Your task to perform on an android device: turn on the 12-hour format for clock Image 0: 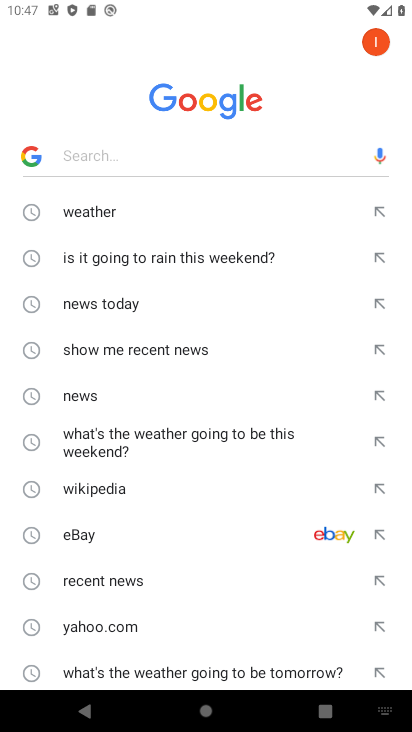
Step 0: press home button
Your task to perform on an android device: turn on the 12-hour format for clock Image 1: 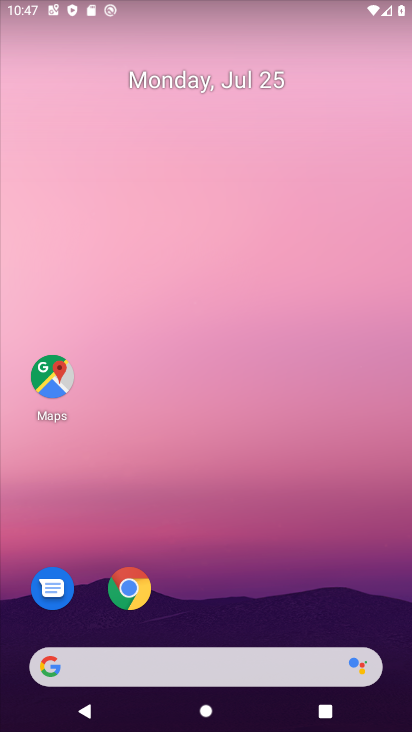
Step 1: drag from (285, 600) to (272, 67)
Your task to perform on an android device: turn on the 12-hour format for clock Image 2: 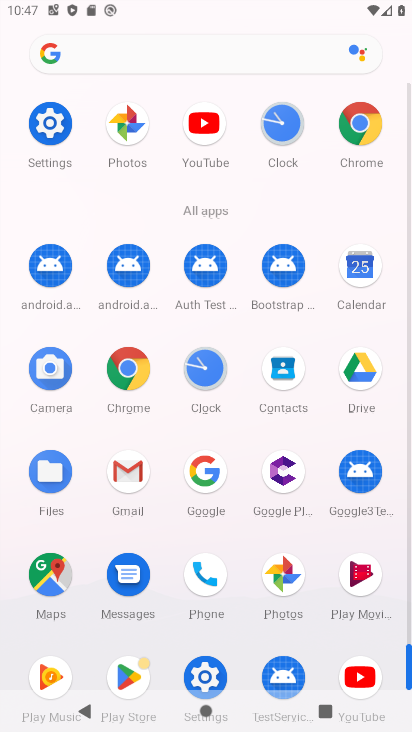
Step 2: click (212, 366)
Your task to perform on an android device: turn on the 12-hour format for clock Image 3: 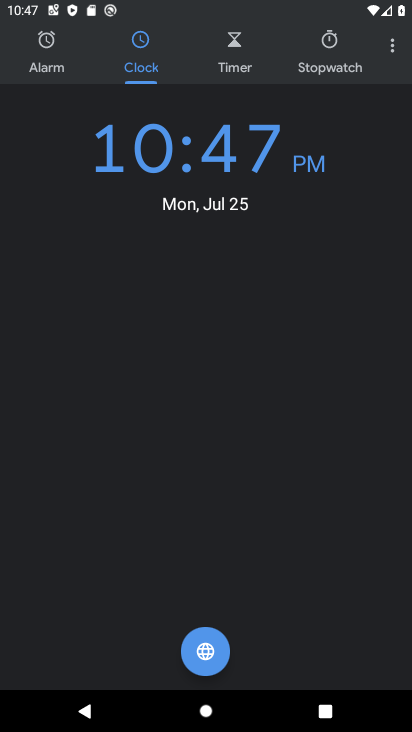
Step 3: click (402, 49)
Your task to perform on an android device: turn on the 12-hour format for clock Image 4: 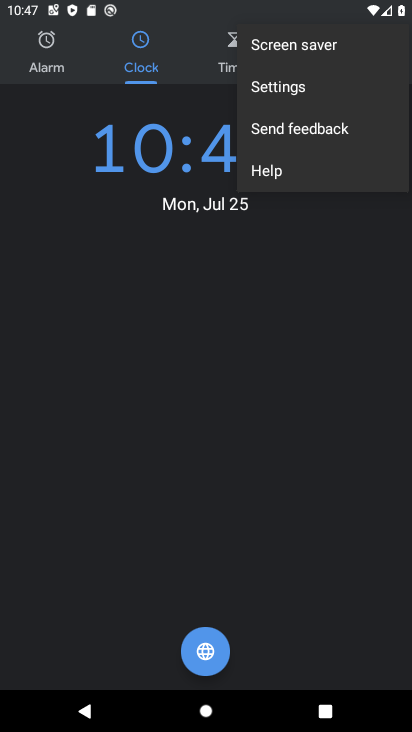
Step 4: click (298, 87)
Your task to perform on an android device: turn on the 12-hour format for clock Image 5: 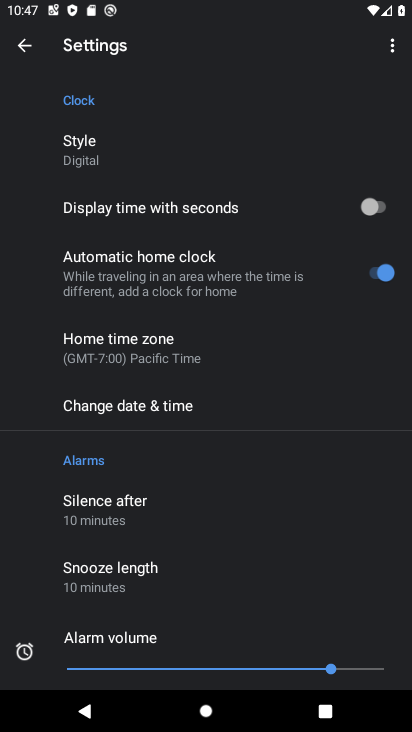
Step 5: click (233, 403)
Your task to perform on an android device: turn on the 12-hour format for clock Image 6: 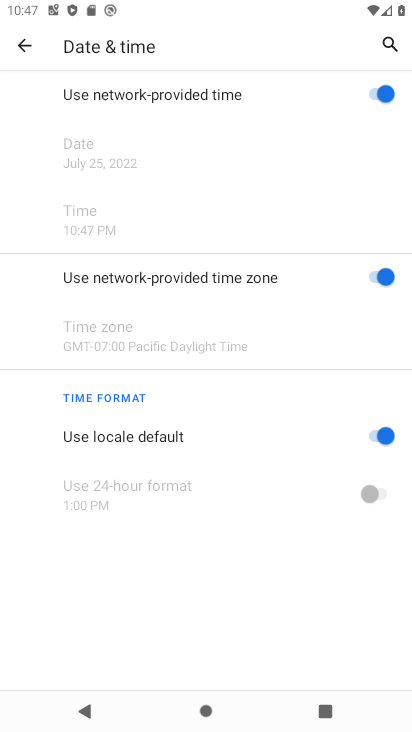
Step 6: task complete